Your task to perform on an android device: Open Google Chrome and click the shortcut for Amazon.com Image 0: 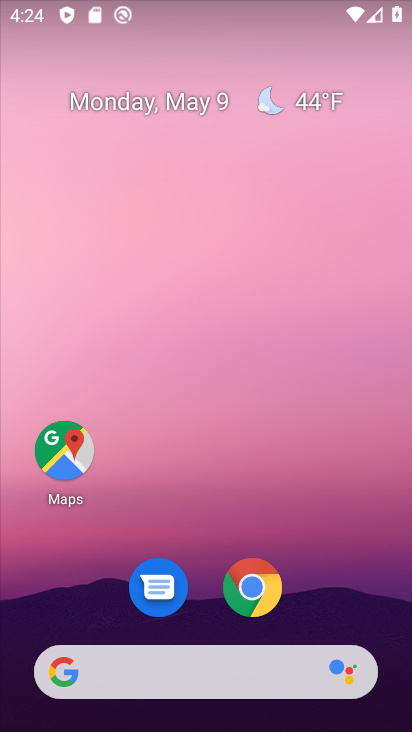
Step 0: click (253, 589)
Your task to perform on an android device: Open Google Chrome and click the shortcut for Amazon.com Image 1: 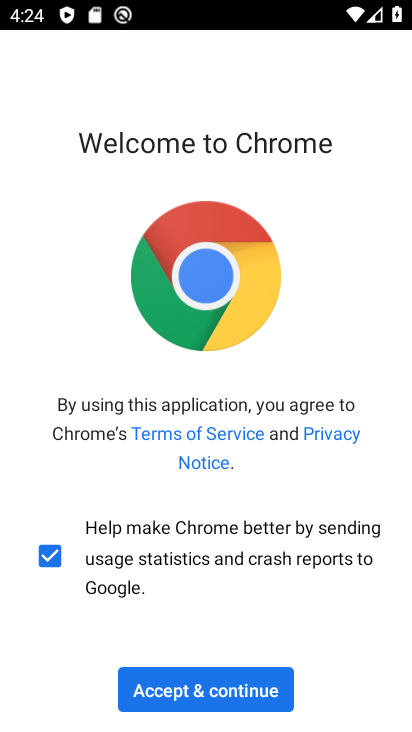
Step 1: click (176, 705)
Your task to perform on an android device: Open Google Chrome and click the shortcut for Amazon.com Image 2: 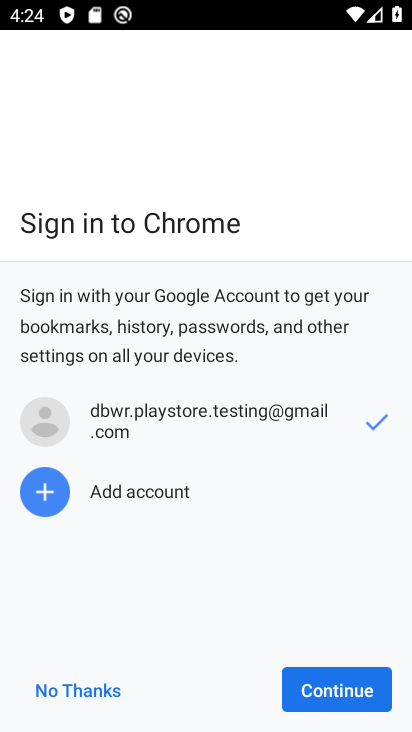
Step 2: click (325, 682)
Your task to perform on an android device: Open Google Chrome and click the shortcut for Amazon.com Image 3: 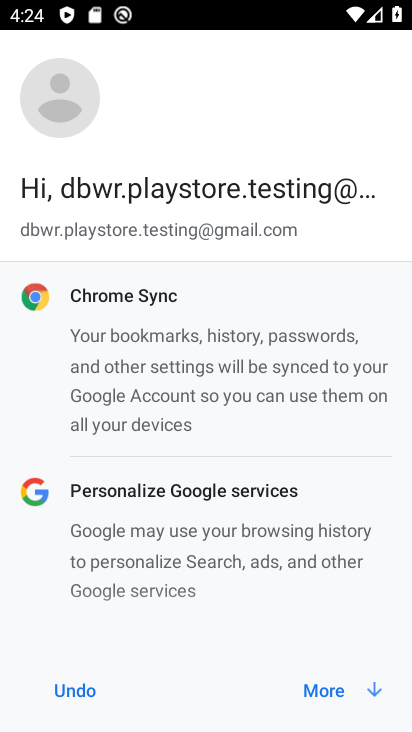
Step 3: click (325, 682)
Your task to perform on an android device: Open Google Chrome and click the shortcut for Amazon.com Image 4: 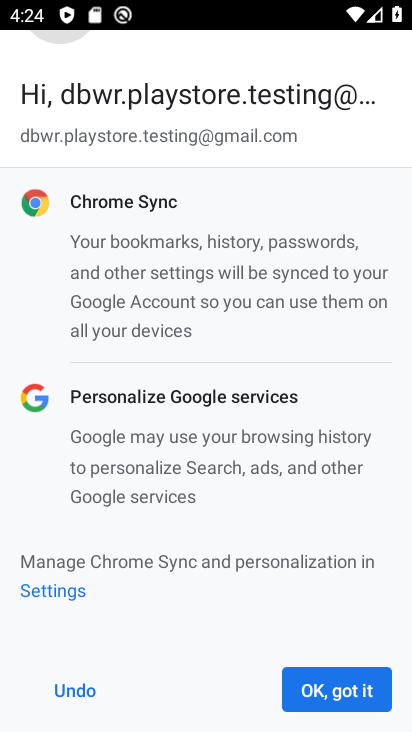
Step 4: click (325, 682)
Your task to perform on an android device: Open Google Chrome and click the shortcut for Amazon.com Image 5: 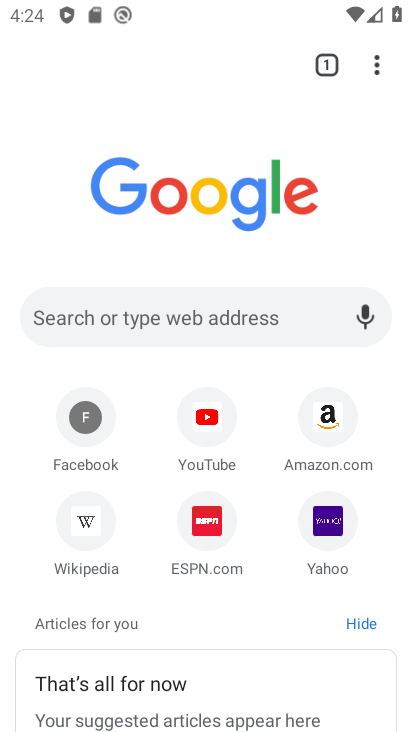
Step 5: click (330, 424)
Your task to perform on an android device: Open Google Chrome and click the shortcut for Amazon.com Image 6: 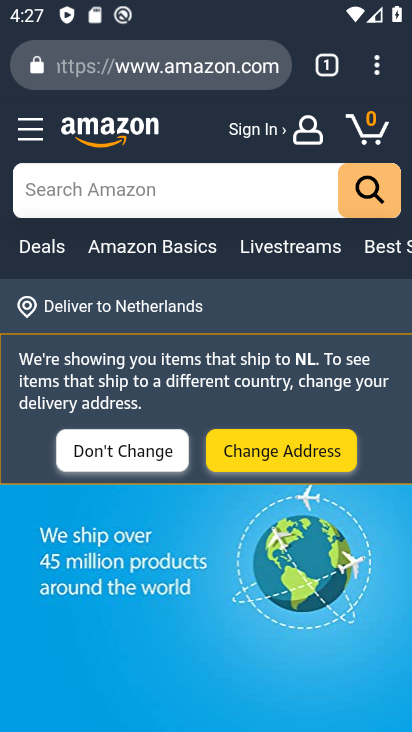
Step 6: task complete